Your task to perform on an android device: Search for logitech g pro on costco.com, select the first entry, and add it to the cart. Image 0: 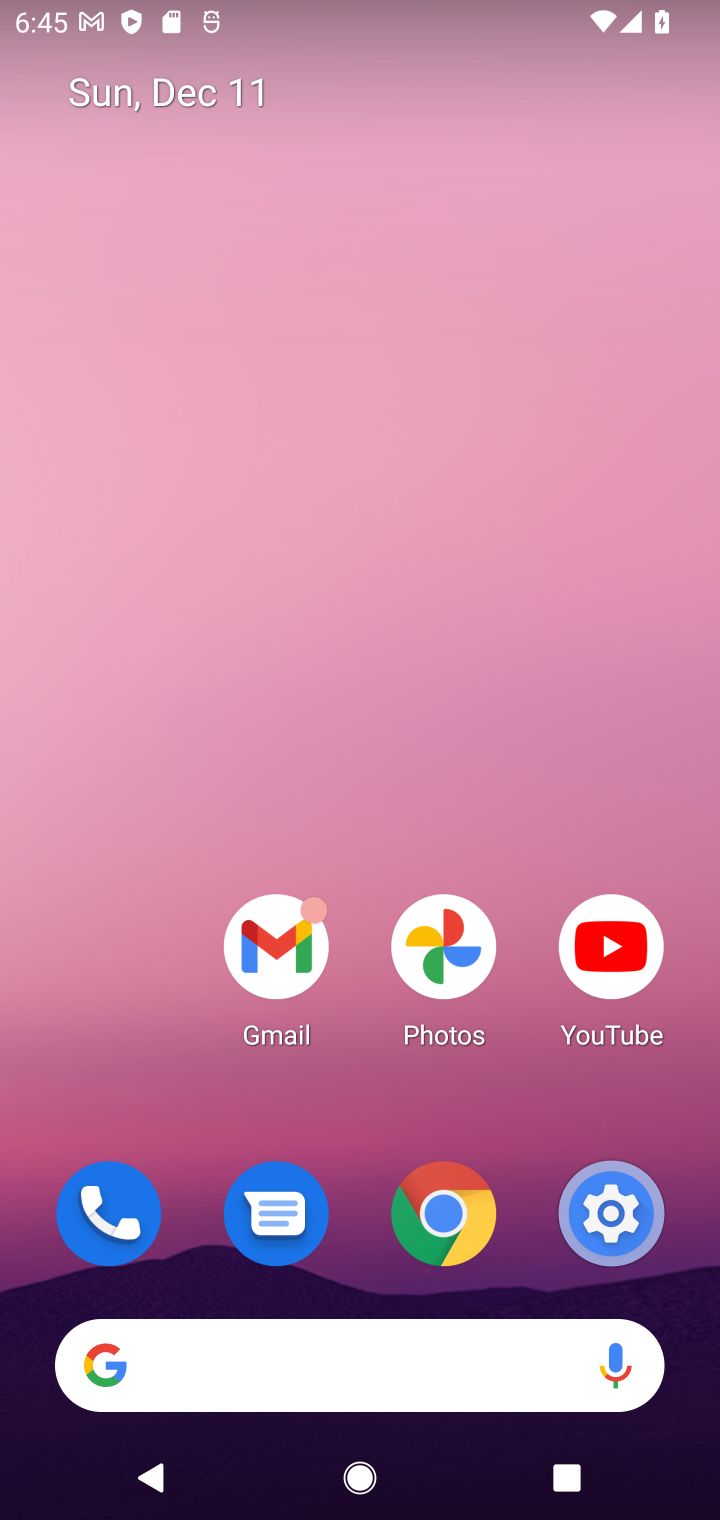
Step 0: press home button
Your task to perform on an android device: Search for logitech g pro on costco.com, select the first entry, and add it to the cart. Image 1: 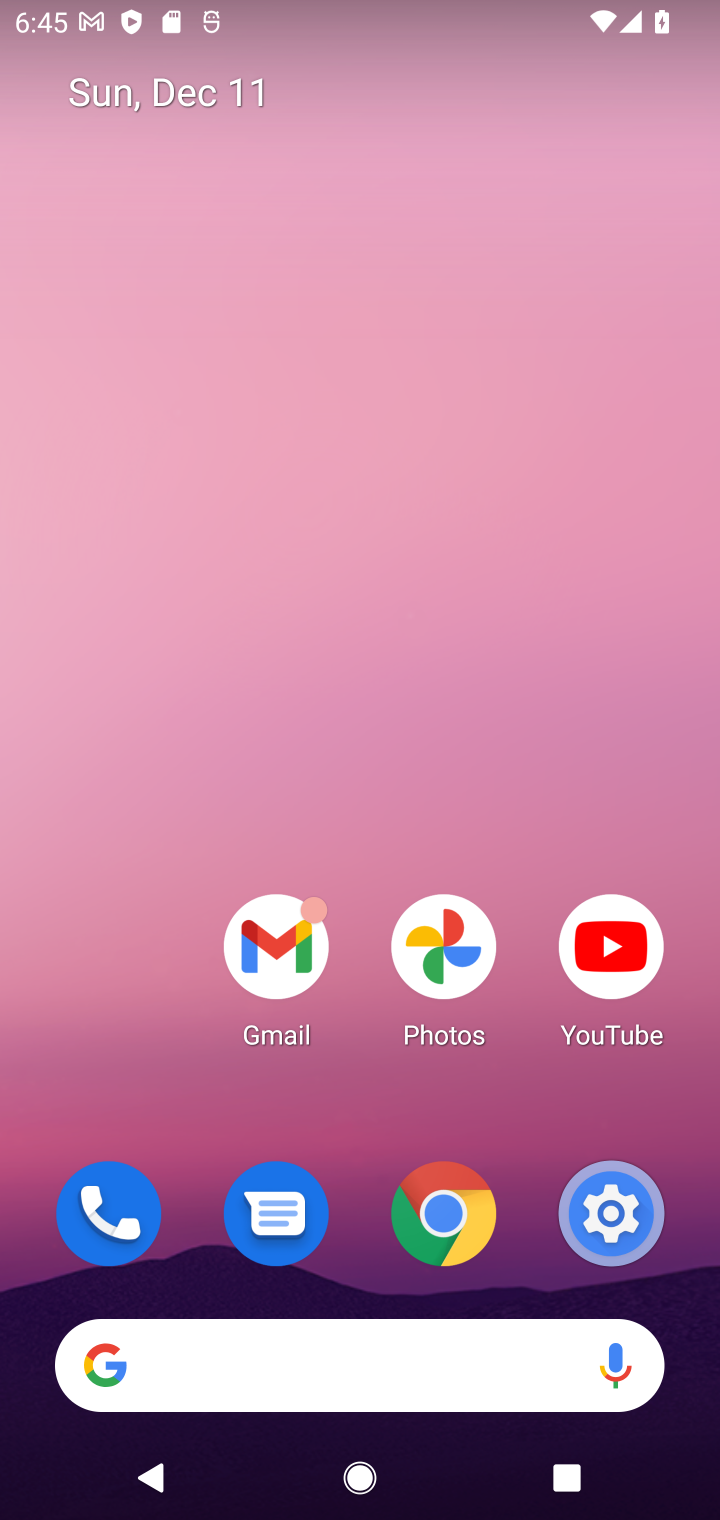
Step 1: click (399, 1358)
Your task to perform on an android device: Search for logitech g pro on costco.com, select the first entry, and add it to the cart. Image 2: 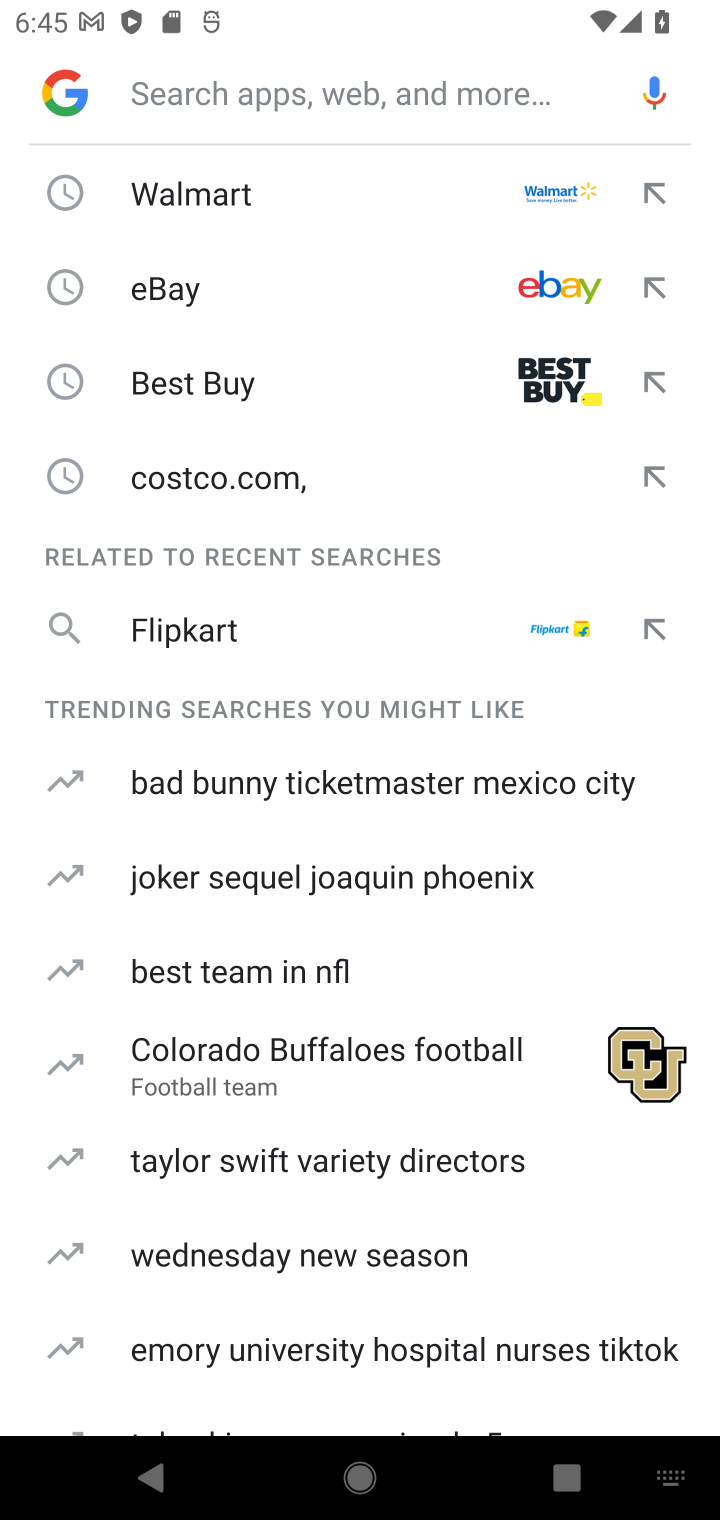
Step 2: type "costco.com"
Your task to perform on an android device: Search for logitech g pro on costco.com, select the first entry, and add it to the cart. Image 3: 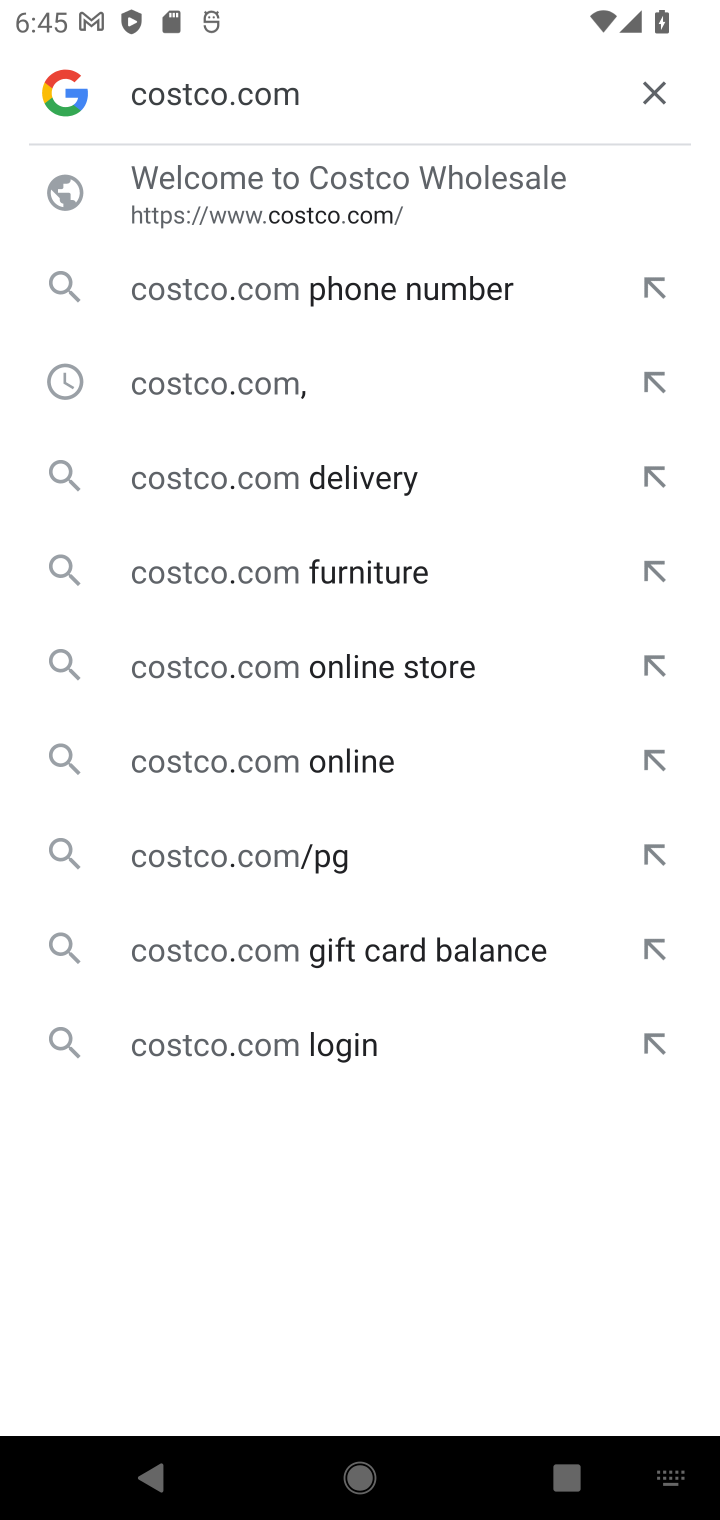
Step 3: click (309, 224)
Your task to perform on an android device: Search for logitech g pro on costco.com, select the first entry, and add it to the cart. Image 4: 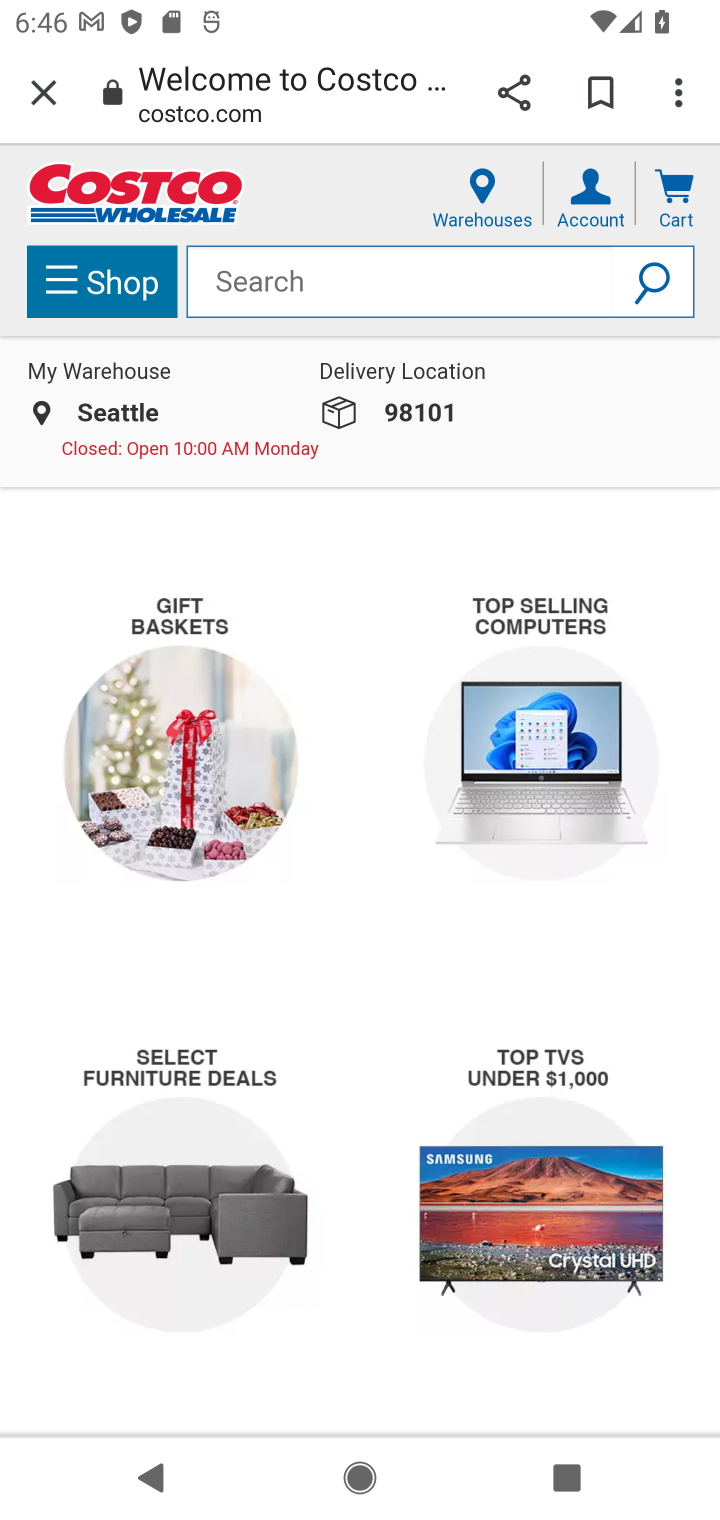
Step 4: click (290, 275)
Your task to perform on an android device: Search for logitech g pro on costco.com, select the first entry, and add it to the cart. Image 5: 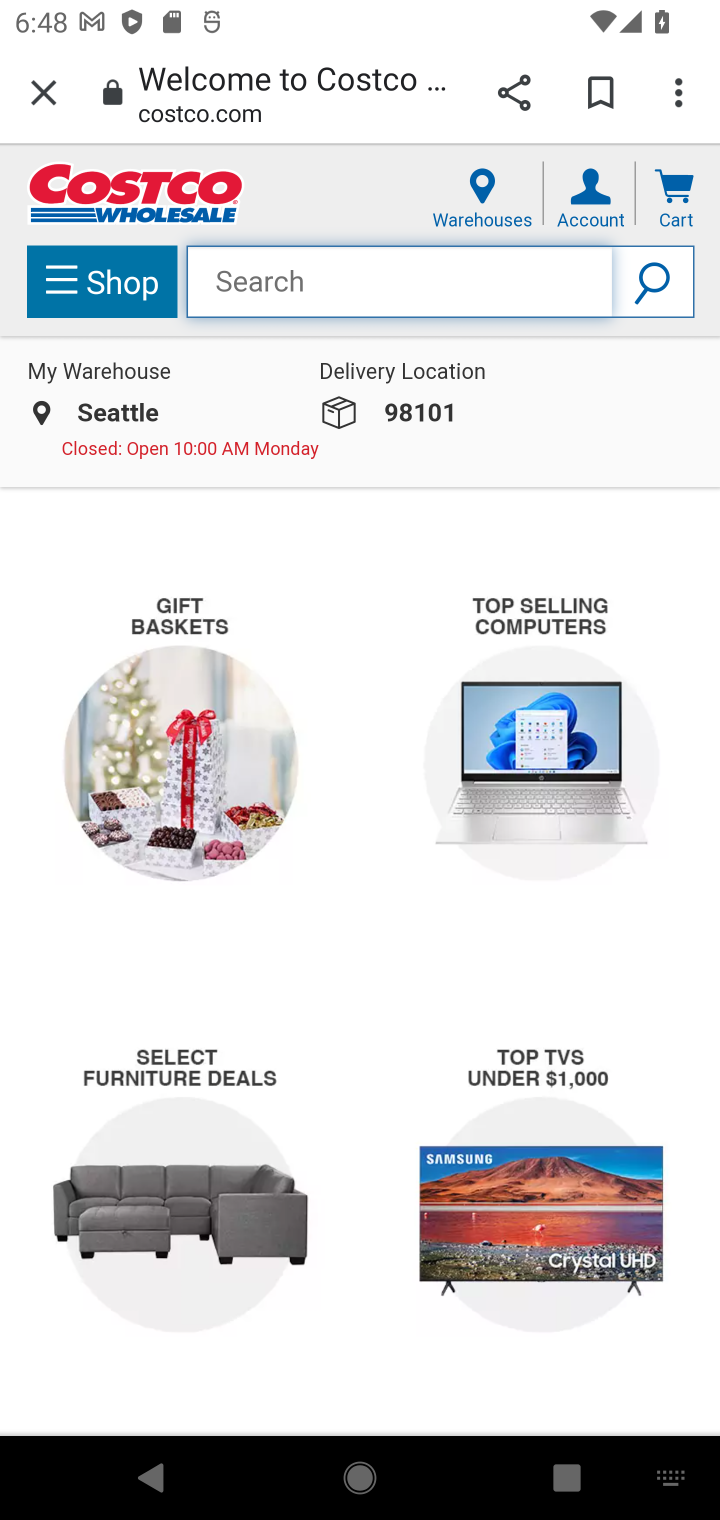
Step 5: type "logitech g pro"
Your task to perform on an android device: Search for logitech g pro on costco.com, select the first entry, and add it to the cart. Image 6: 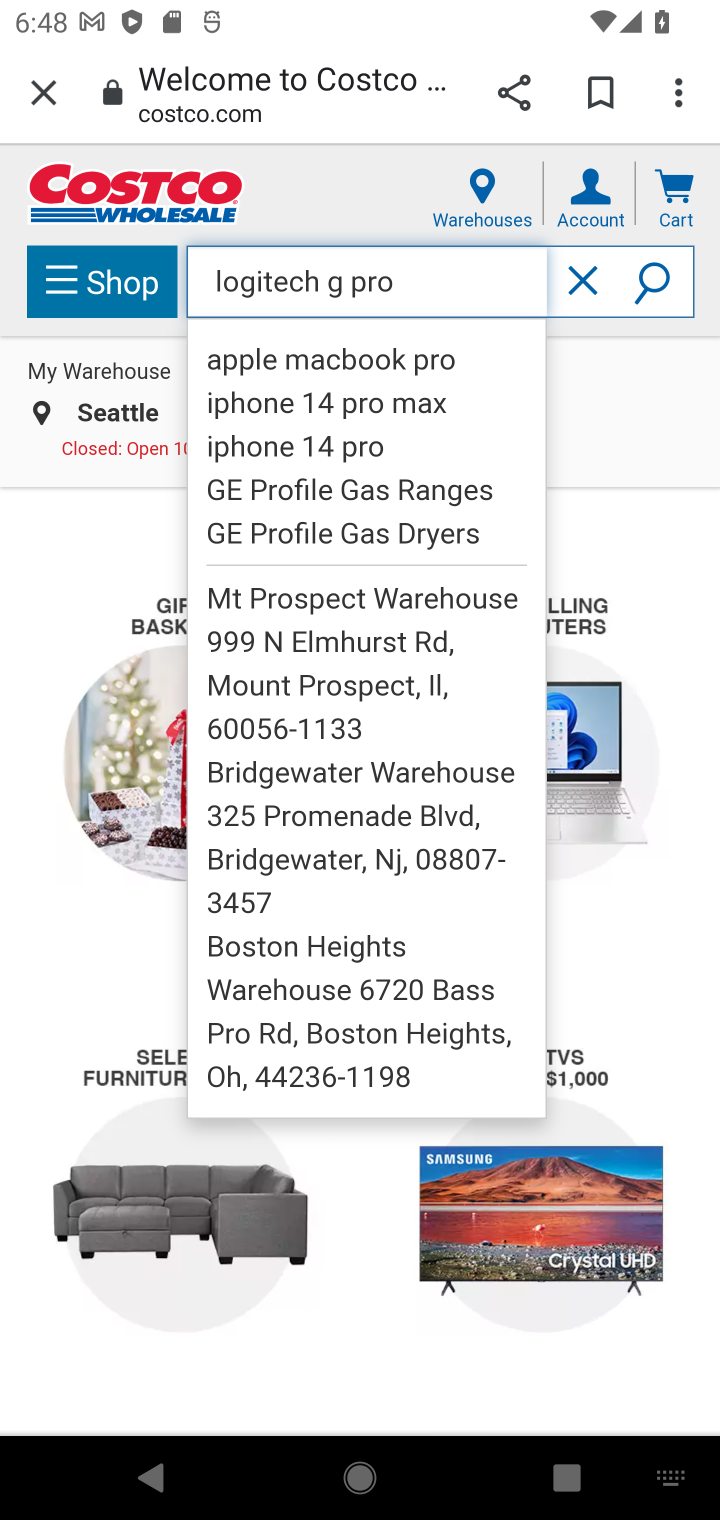
Step 6: click (658, 277)
Your task to perform on an android device: Search for logitech g pro on costco.com, select the first entry, and add it to the cart. Image 7: 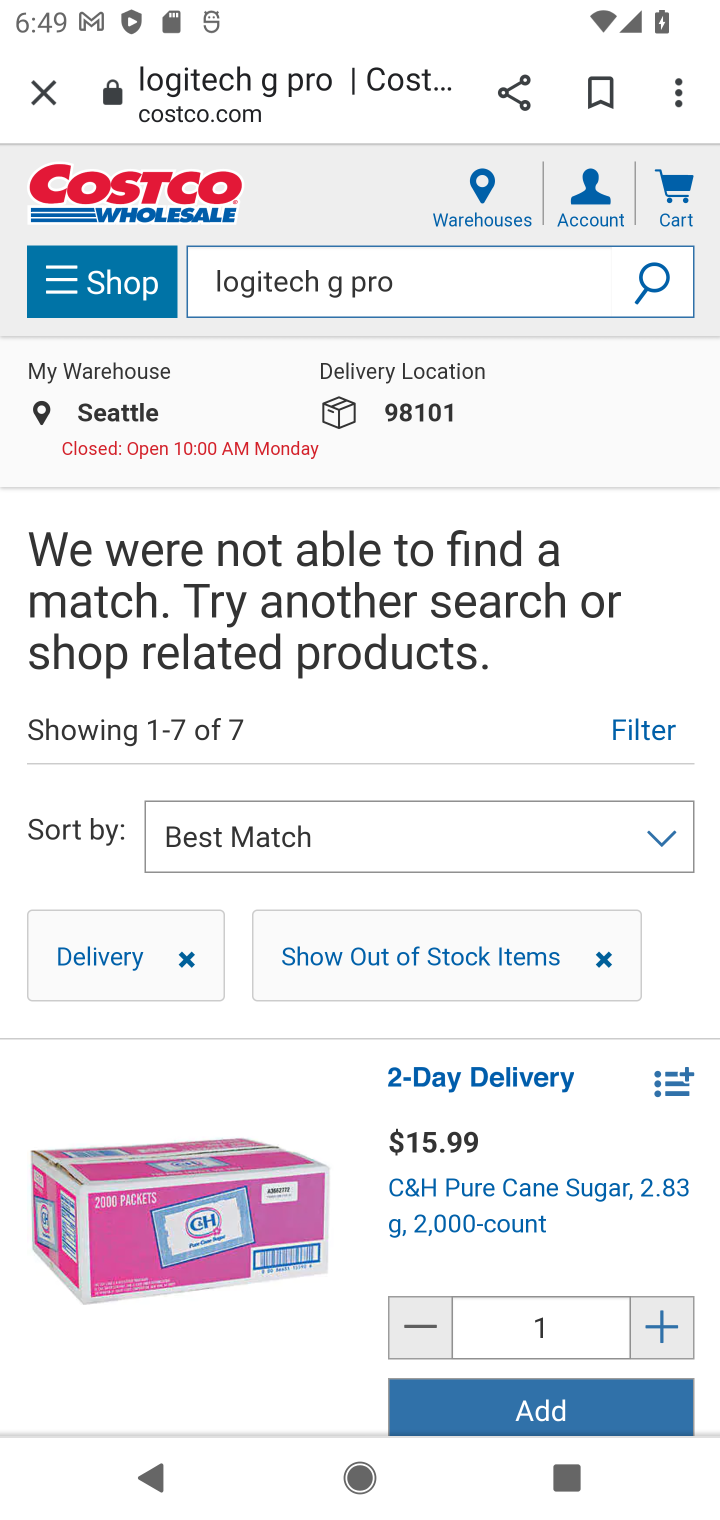
Step 7: click (566, 1423)
Your task to perform on an android device: Search for logitech g pro on costco.com, select the first entry, and add it to the cart. Image 8: 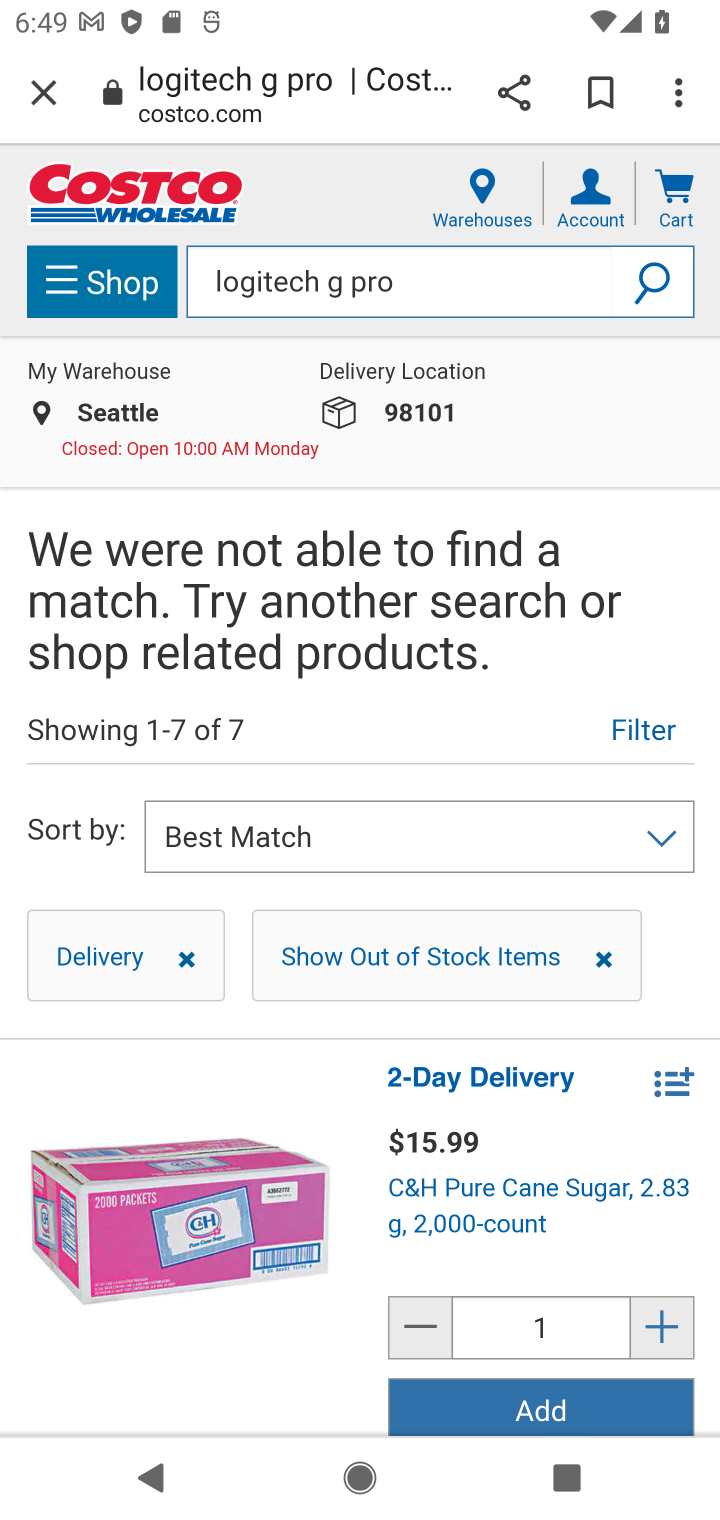
Step 8: task complete